Your task to perform on an android device: all mails in gmail Image 0: 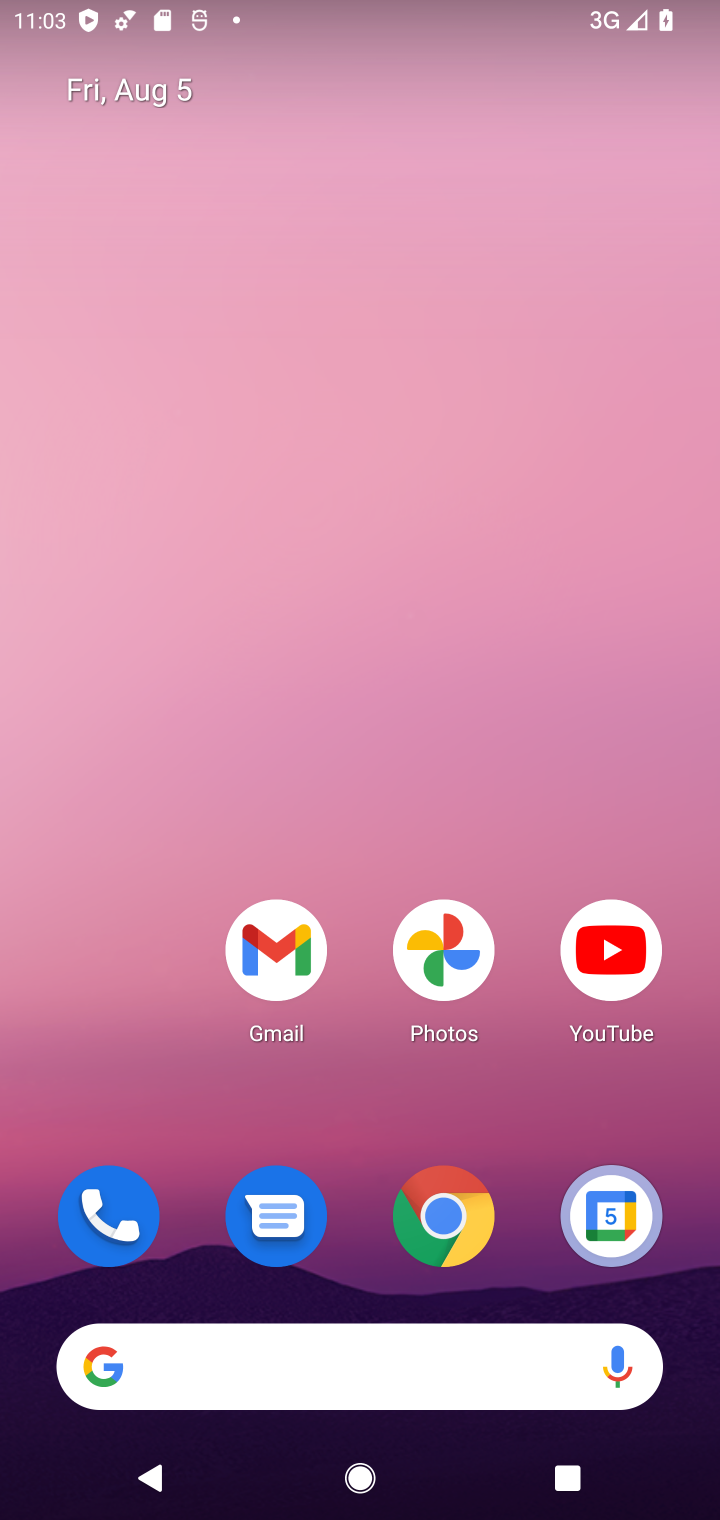
Step 0: drag from (461, 1340) to (322, 5)
Your task to perform on an android device: all mails in gmail Image 1: 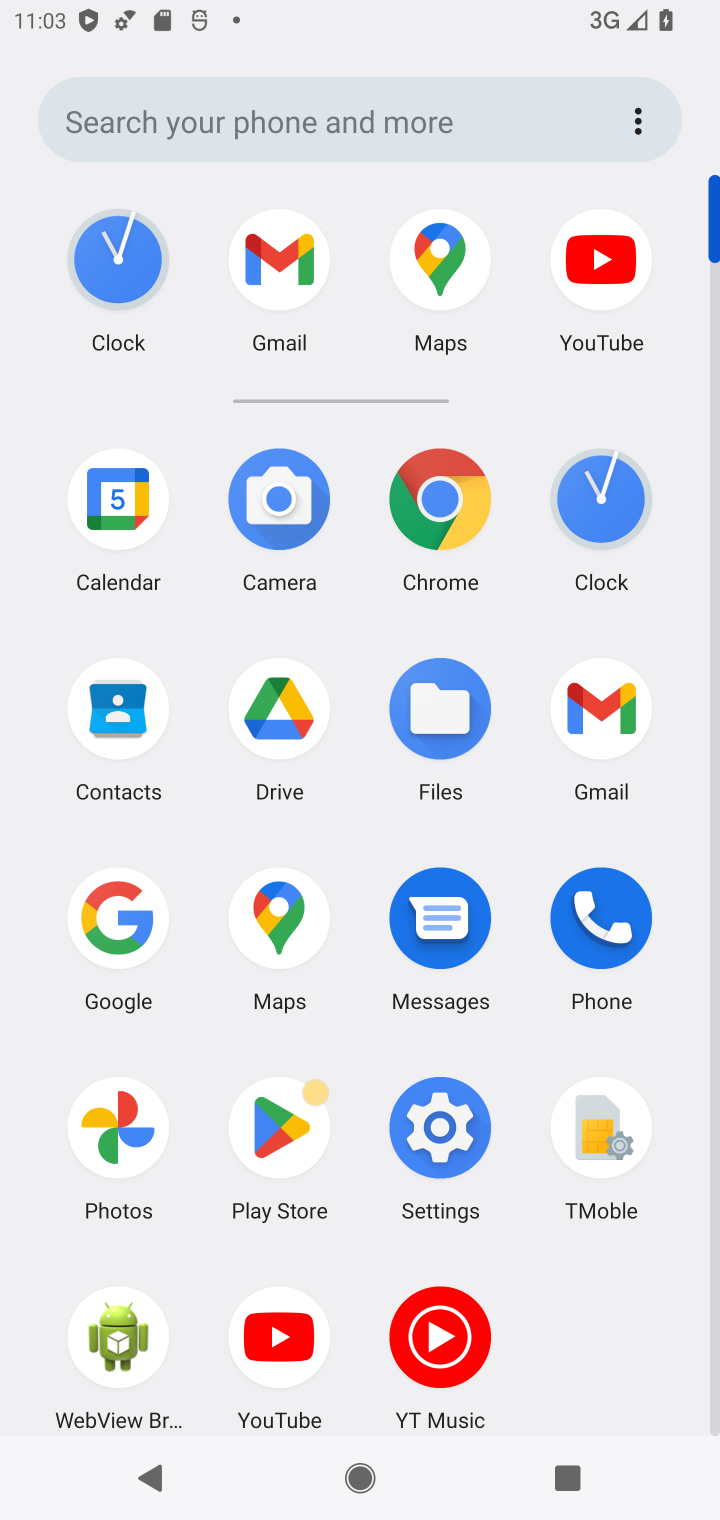
Step 1: click (629, 710)
Your task to perform on an android device: all mails in gmail Image 2: 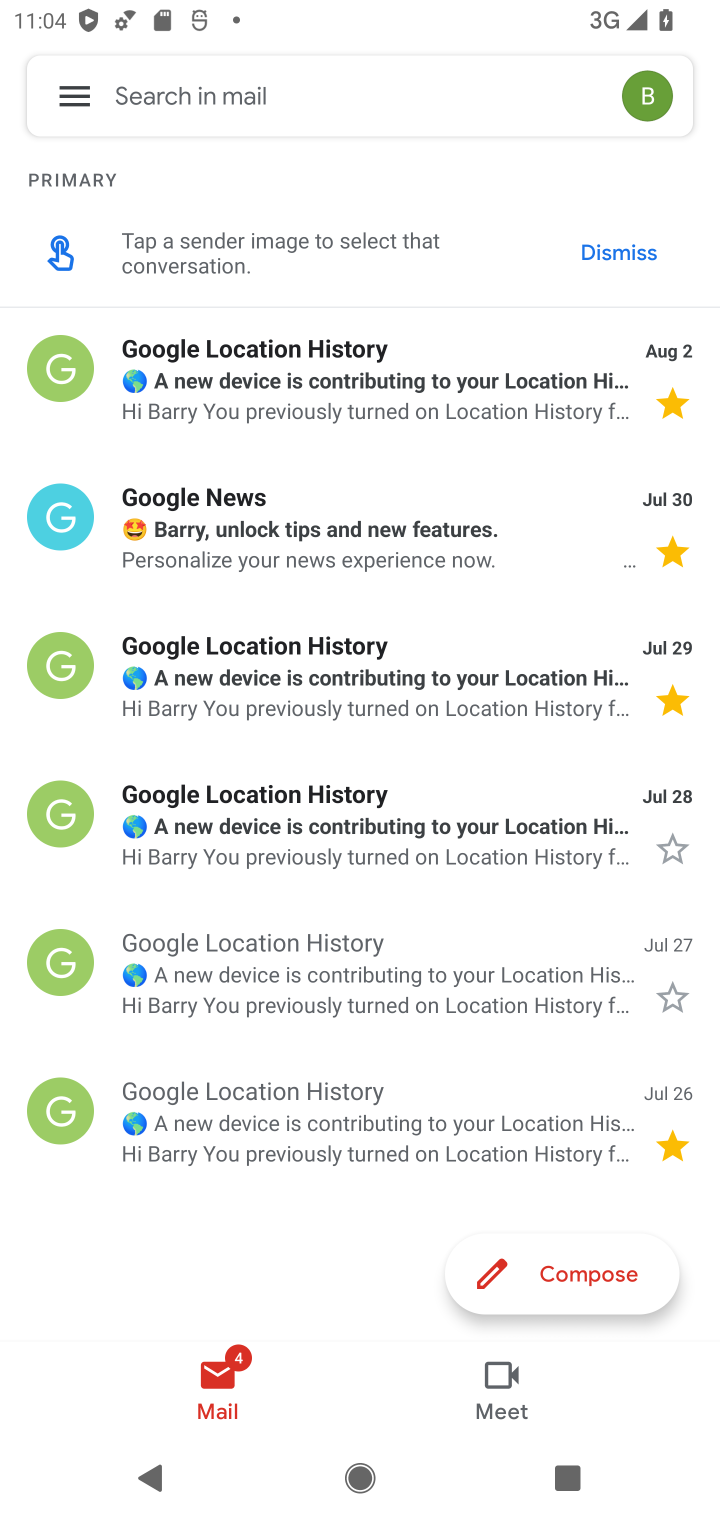
Step 2: click (37, 106)
Your task to perform on an android device: all mails in gmail Image 3: 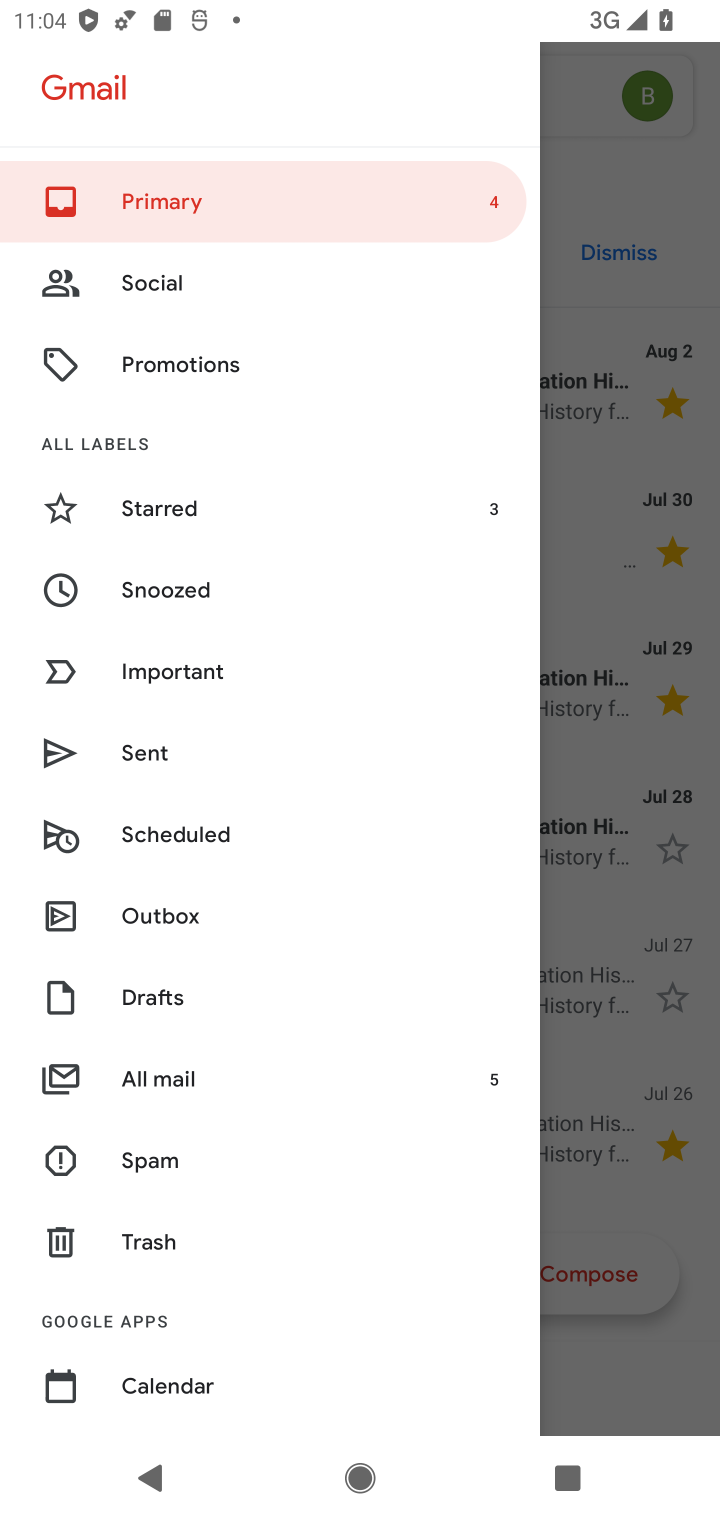
Step 3: click (192, 1072)
Your task to perform on an android device: all mails in gmail Image 4: 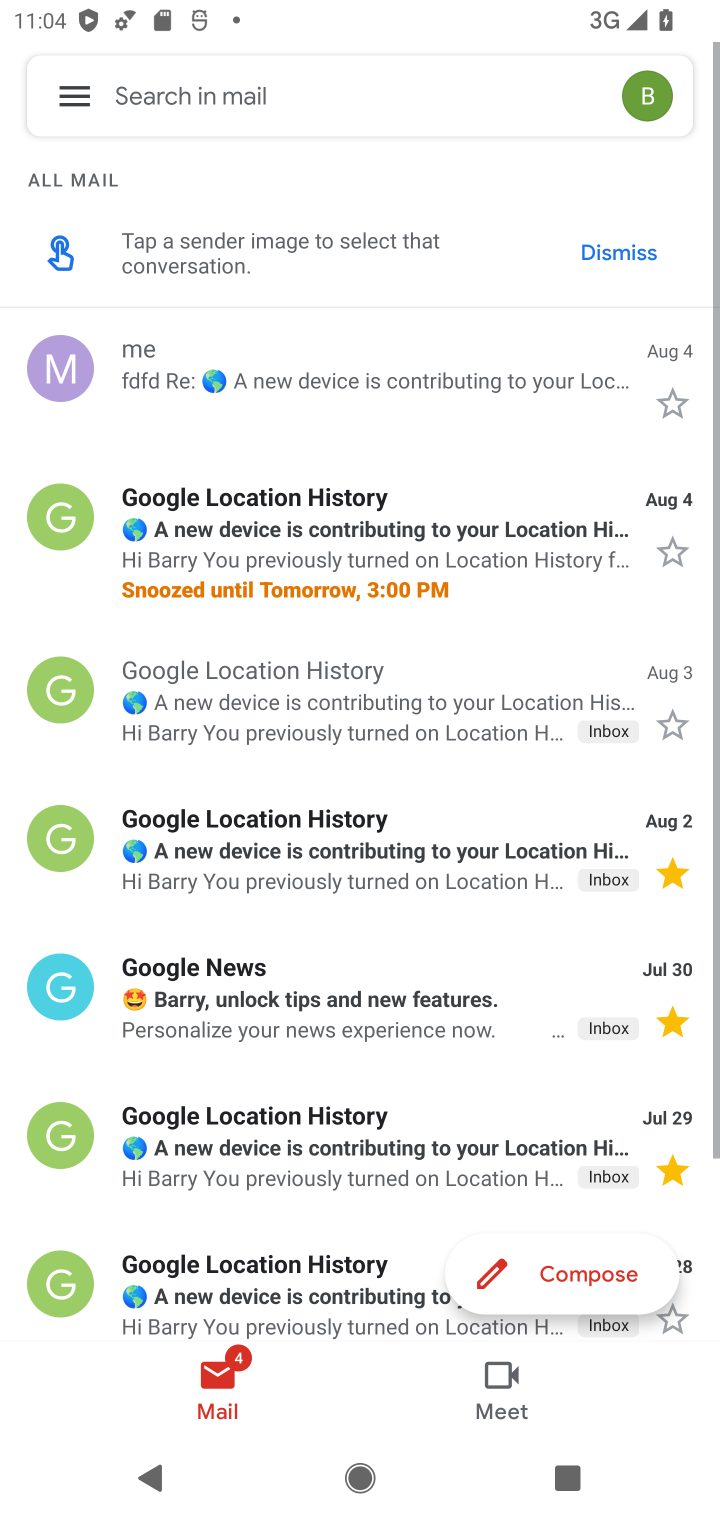
Step 4: task complete